Your task to perform on an android device: View the shopping cart on amazon.com. Search for "energizer triple a" on amazon.com, select the first entry, add it to the cart, then select checkout. Image 0: 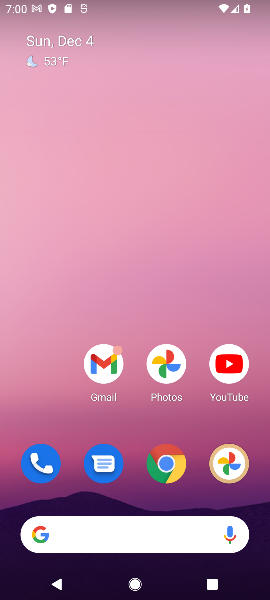
Step 0: click (166, 529)
Your task to perform on an android device: View the shopping cart on amazon.com. Search for "energizer triple a" on amazon.com, select the first entry, add it to the cart, then select checkout. Image 1: 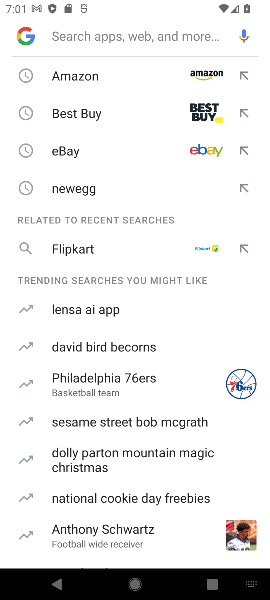
Step 1: type "amazon"
Your task to perform on an android device: View the shopping cart on amazon.com. Search for "energizer triple a" on amazon.com, select the first entry, add it to the cart, then select checkout. Image 2: 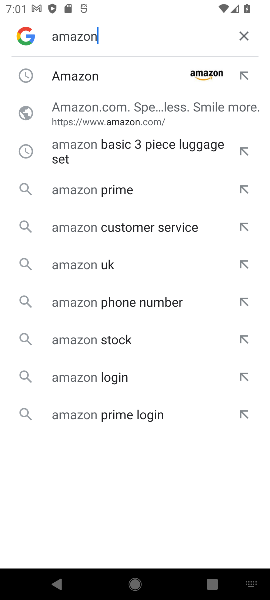
Step 2: click (59, 83)
Your task to perform on an android device: View the shopping cart on amazon.com. Search for "energizer triple a" on amazon.com, select the first entry, add it to the cart, then select checkout. Image 3: 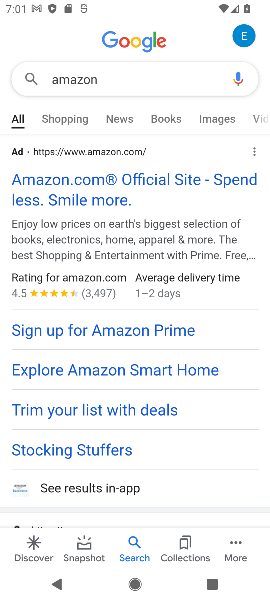
Step 3: click (93, 189)
Your task to perform on an android device: View the shopping cart on amazon.com. Search for "energizer triple a" on amazon.com, select the first entry, add it to the cart, then select checkout. Image 4: 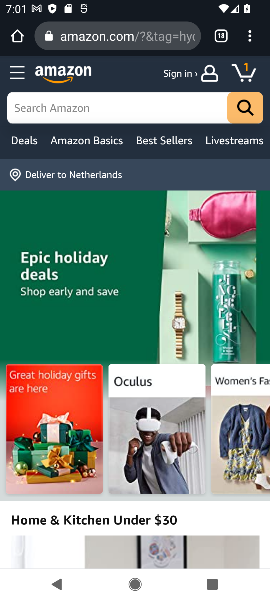
Step 4: click (103, 111)
Your task to perform on an android device: View the shopping cart on amazon.com. Search for "energizer triple a" on amazon.com, select the first entry, add it to the cart, then select checkout. Image 5: 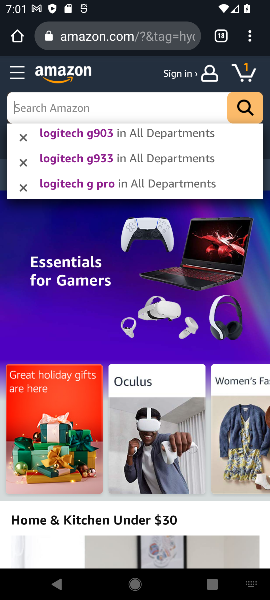
Step 5: type "energizer triple a"
Your task to perform on an android device: View the shopping cart on amazon.com. Search for "energizer triple a" on amazon.com, select the first entry, add it to the cart, then select checkout. Image 6: 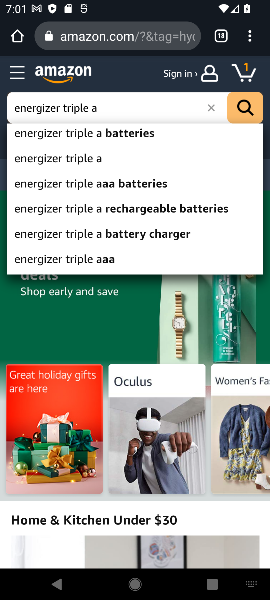
Step 6: click (150, 136)
Your task to perform on an android device: View the shopping cart on amazon.com. Search for "energizer triple a" on amazon.com, select the first entry, add it to the cart, then select checkout. Image 7: 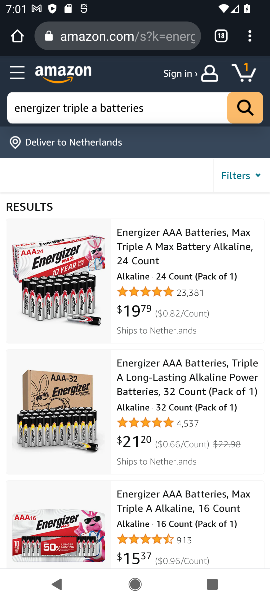
Step 7: click (193, 239)
Your task to perform on an android device: View the shopping cart on amazon.com. Search for "energizer triple a" on amazon.com, select the first entry, add it to the cart, then select checkout. Image 8: 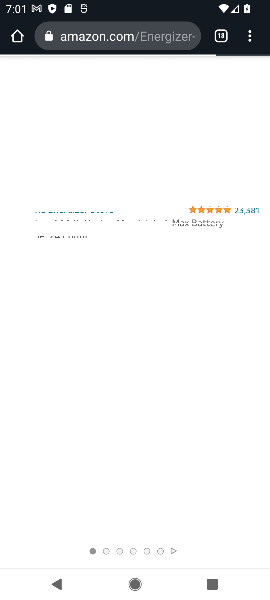
Step 8: drag from (201, 525) to (192, 266)
Your task to perform on an android device: View the shopping cart on amazon.com. Search for "energizer triple a" on amazon.com, select the first entry, add it to the cart, then select checkout. Image 9: 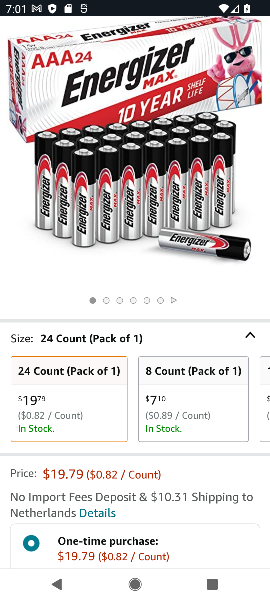
Step 9: drag from (201, 523) to (218, 152)
Your task to perform on an android device: View the shopping cart on amazon.com. Search for "energizer triple a" on amazon.com, select the first entry, add it to the cart, then select checkout. Image 10: 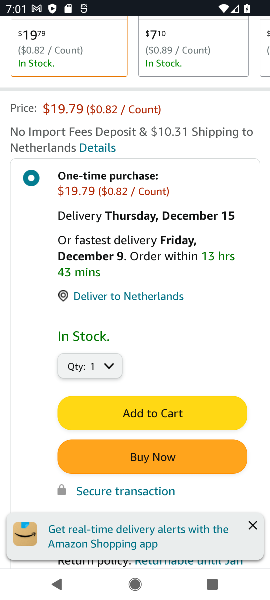
Step 10: click (201, 409)
Your task to perform on an android device: View the shopping cart on amazon.com. Search for "energizer triple a" on amazon.com, select the first entry, add it to the cart, then select checkout. Image 11: 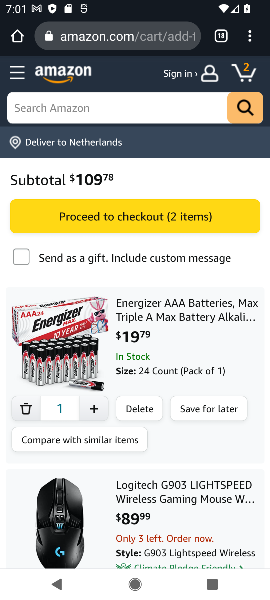
Step 11: task complete